Your task to perform on an android device: Open display settings Image 0: 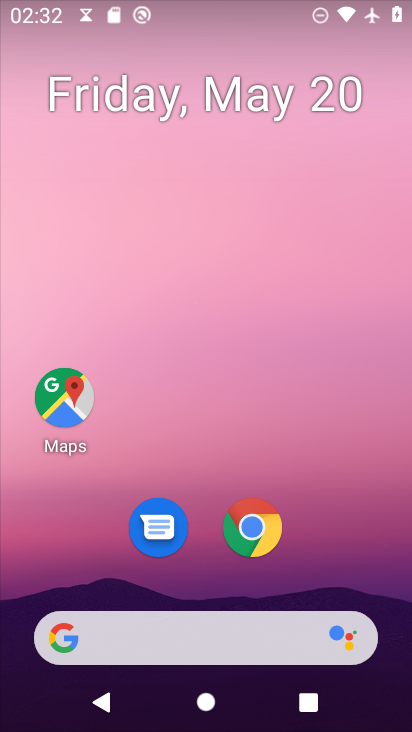
Step 0: press home button
Your task to perform on an android device: Open display settings Image 1: 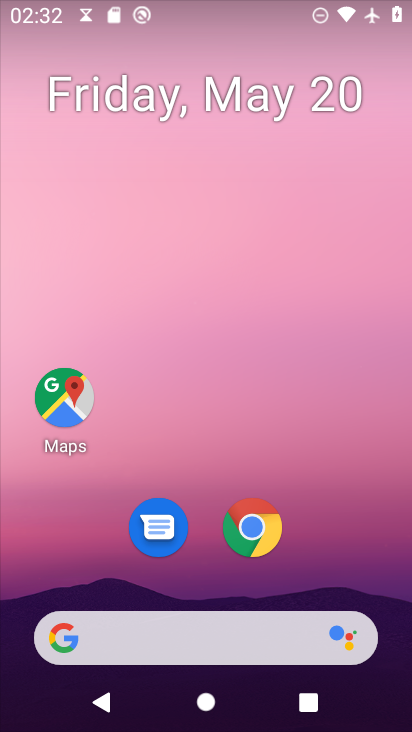
Step 1: drag from (157, 617) to (277, 90)
Your task to perform on an android device: Open display settings Image 2: 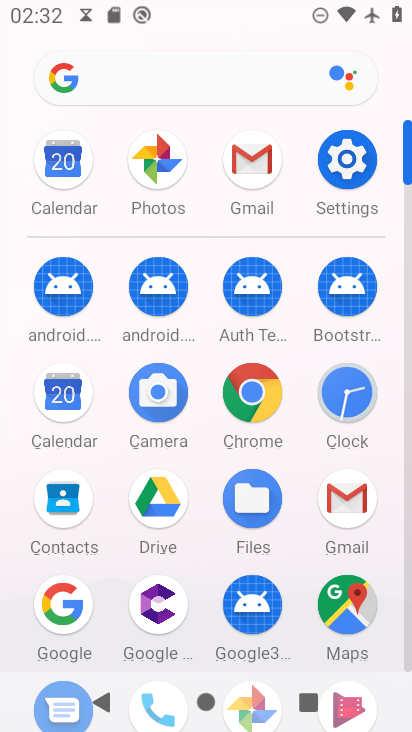
Step 2: click (357, 167)
Your task to perform on an android device: Open display settings Image 3: 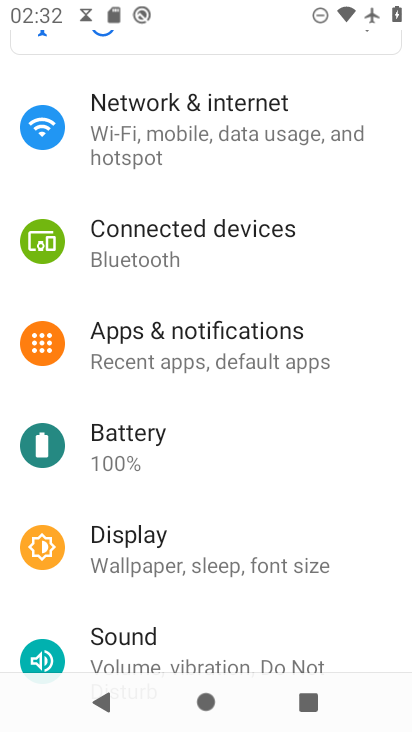
Step 3: click (164, 546)
Your task to perform on an android device: Open display settings Image 4: 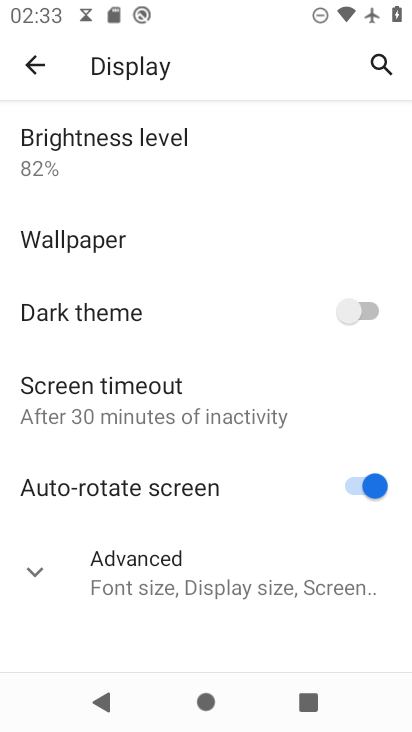
Step 4: task complete